Your task to perform on an android device: delete location history Image 0: 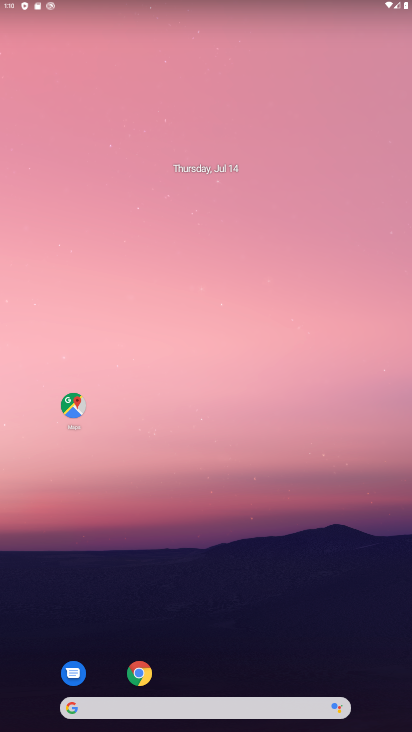
Step 0: drag from (300, 613) to (345, 100)
Your task to perform on an android device: delete location history Image 1: 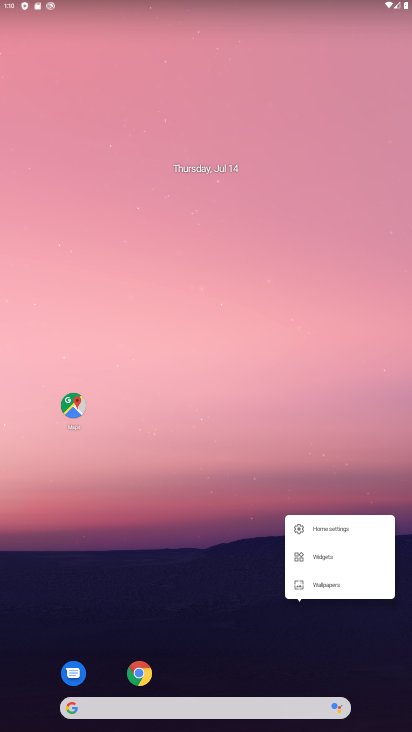
Step 1: click (345, 99)
Your task to perform on an android device: delete location history Image 2: 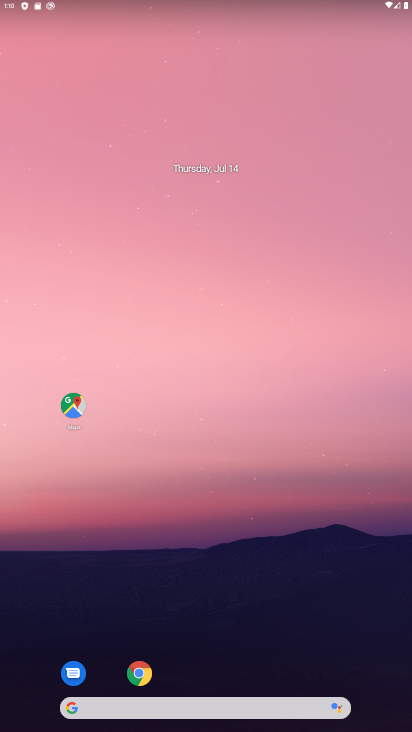
Step 2: click (70, 398)
Your task to perform on an android device: delete location history Image 3: 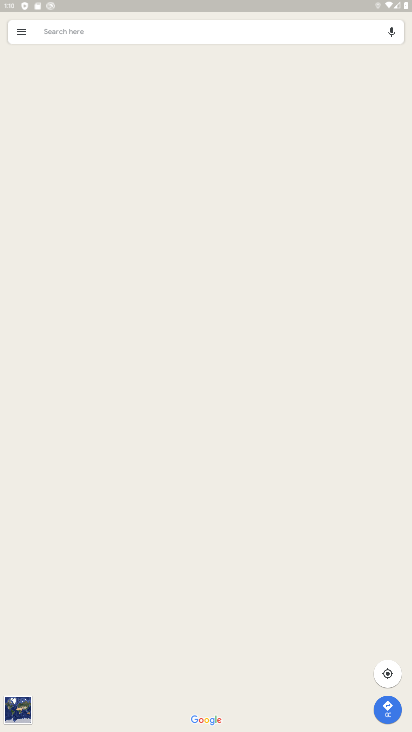
Step 3: click (22, 33)
Your task to perform on an android device: delete location history Image 4: 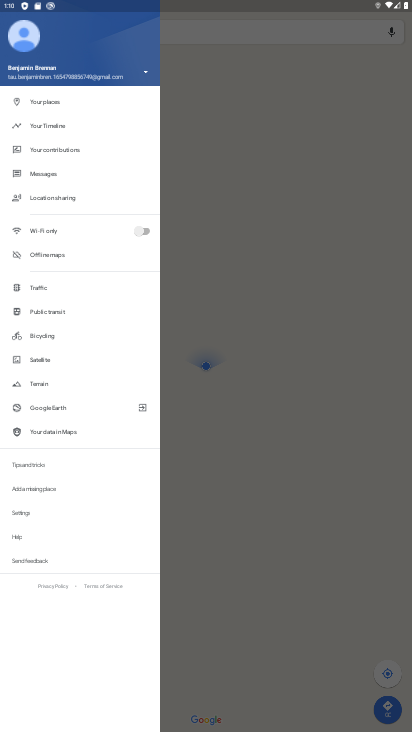
Step 4: click (59, 128)
Your task to perform on an android device: delete location history Image 5: 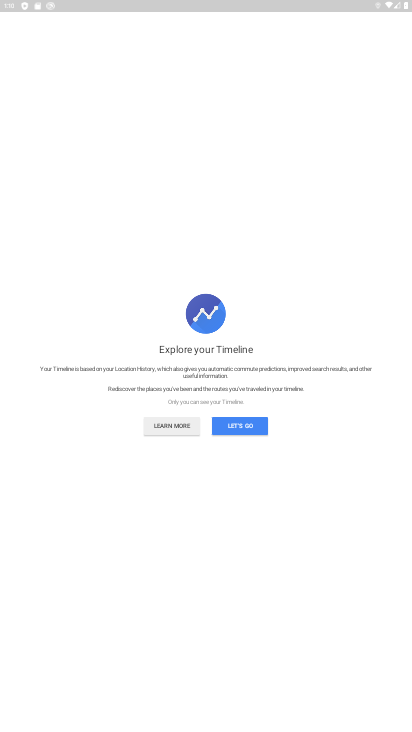
Step 5: click (243, 427)
Your task to perform on an android device: delete location history Image 6: 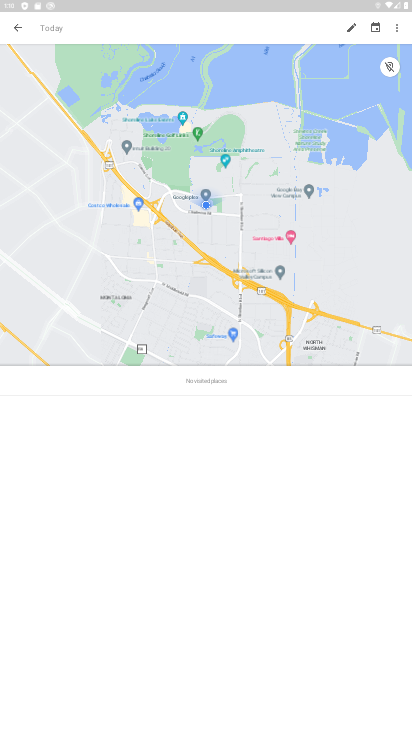
Step 6: click (401, 33)
Your task to perform on an android device: delete location history Image 7: 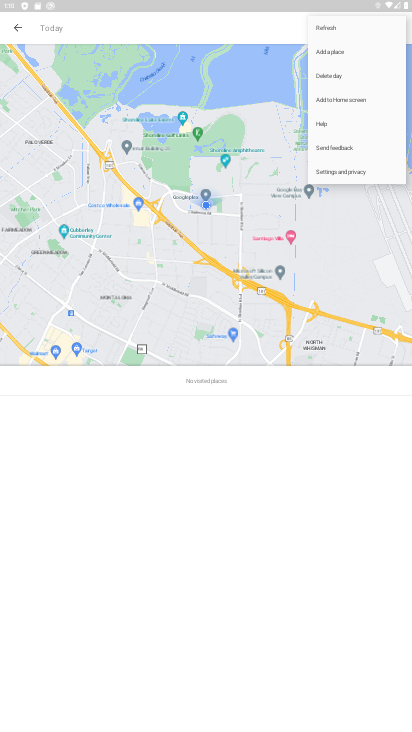
Step 7: click (342, 172)
Your task to perform on an android device: delete location history Image 8: 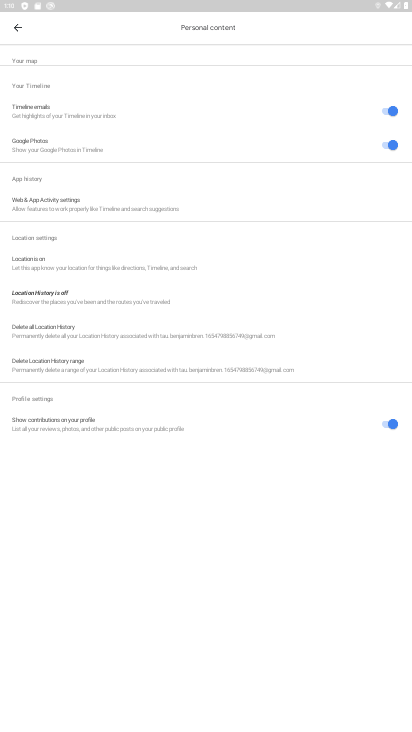
Step 8: click (80, 333)
Your task to perform on an android device: delete location history Image 9: 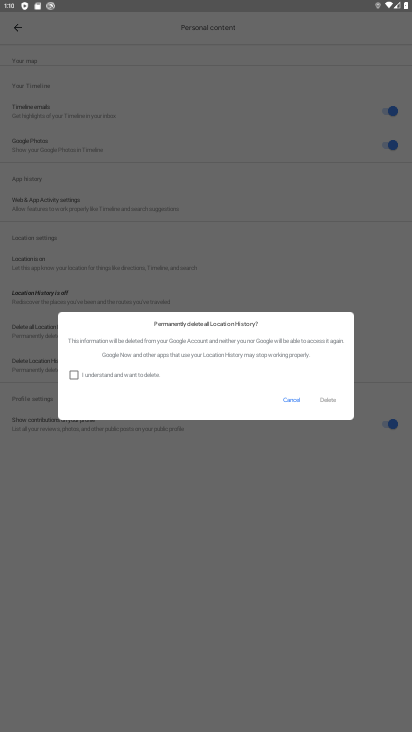
Step 9: click (67, 370)
Your task to perform on an android device: delete location history Image 10: 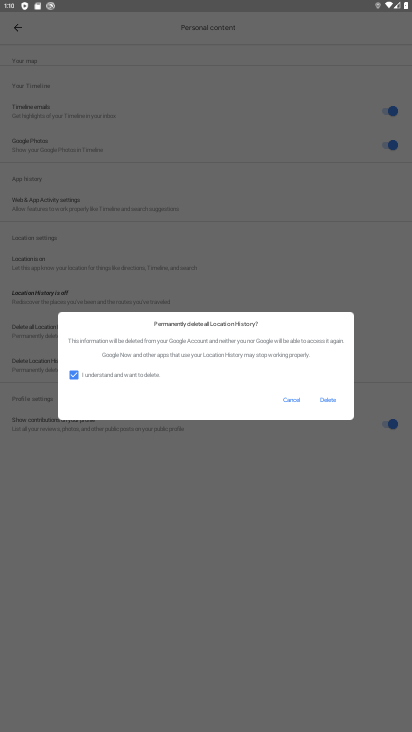
Step 10: click (329, 406)
Your task to perform on an android device: delete location history Image 11: 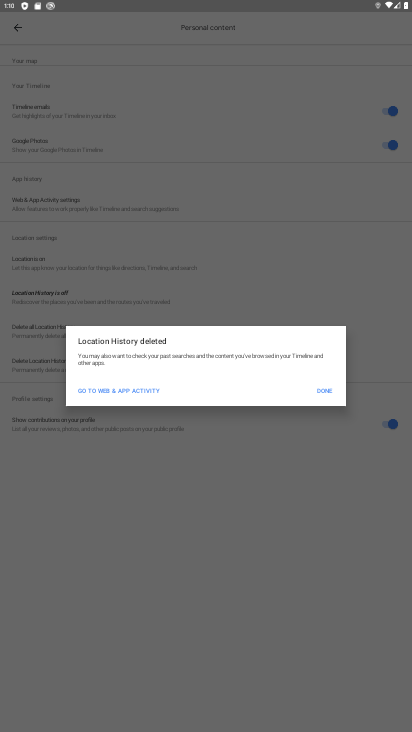
Step 11: task complete